Your task to perform on an android device: turn off sleep mode Image 0: 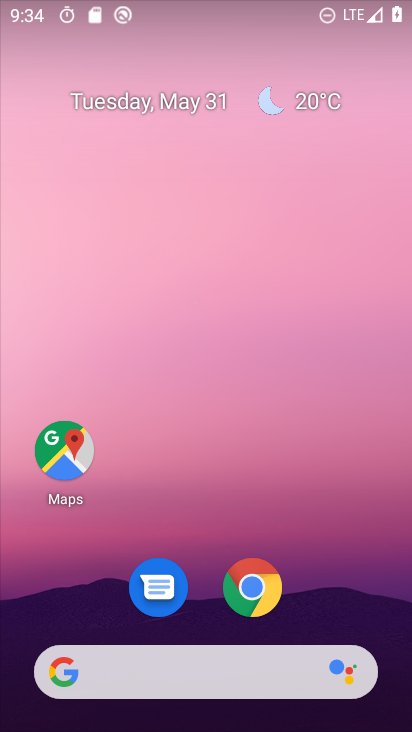
Step 0: drag from (213, 632) to (206, 94)
Your task to perform on an android device: turn off sleep mode Image 1: 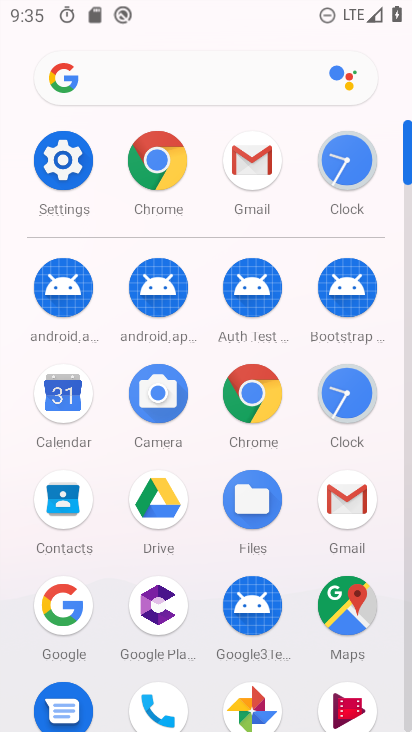
Step 1: click (63, 157)
Your task to perform on an android device: turn off sleep mode Image 2: 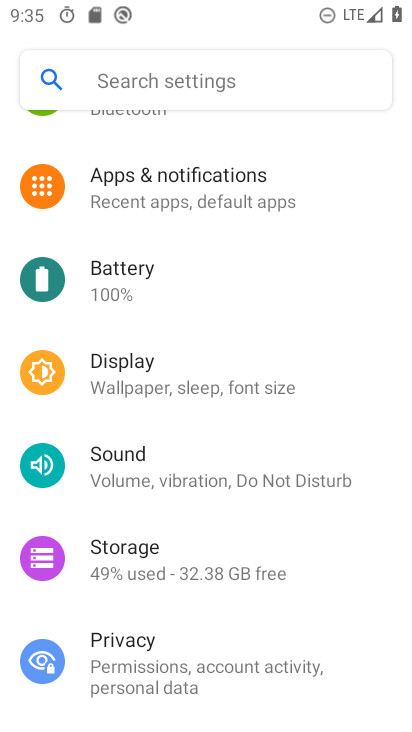
Step 2: task complete